Your task to perform on an android device: Open Google Chrome and open the bookmarks view Image 0: 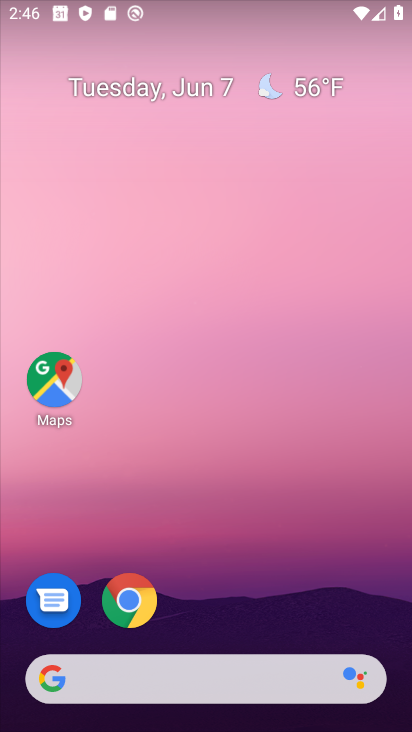
Step 0: click (401, 702)
Your task to perform on an android device: Open Google Chrome and open the bookmarks view Image 1: 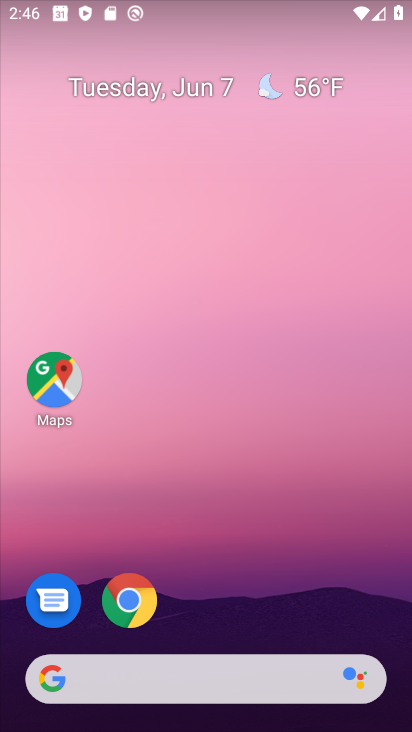
Step 1: click (140, 599)
Your task to perform on an android device: Open Google Chrome and open the bookmarks view Image 2: 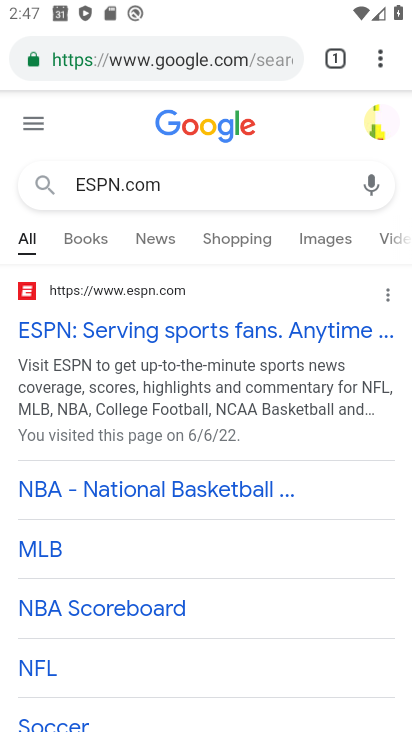
Step 2: click (380, 60)
Your task to perform on an android device: Open Google Chrome and open the bookmarks view Image 3: 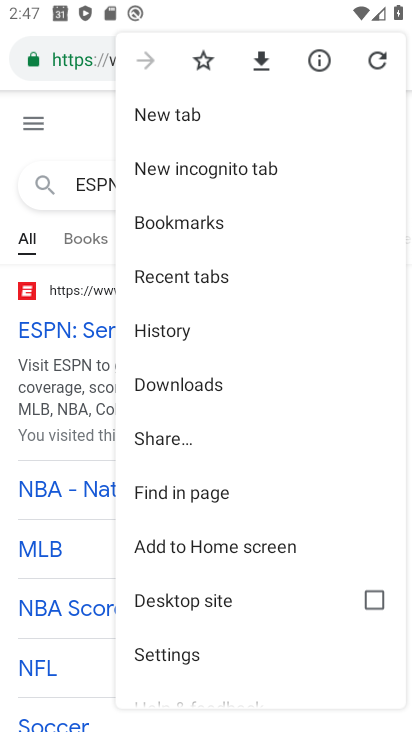
Step 3: click (188, 220)
Your task to perform on an android device: Open Google Chrome and open the bookmarks view Image 4: 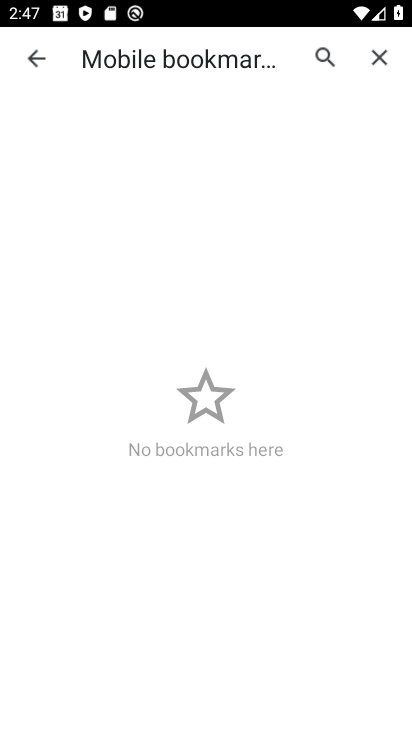
Step 4: task complete